Your task to perform on an android device: Set the phone to "Do not disturb". Image 0: 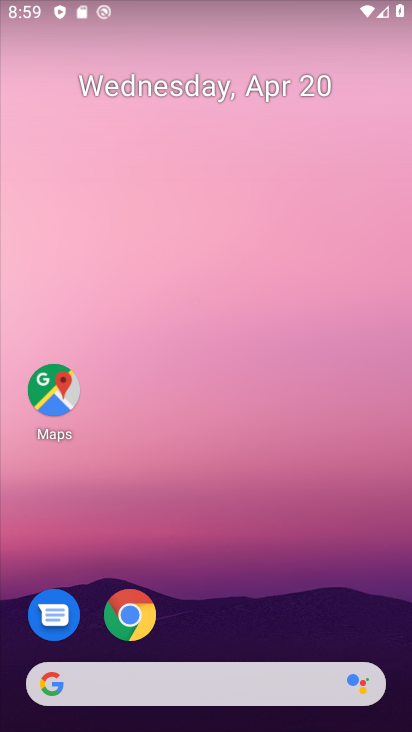
Step 0: drag from (230, 624) to (293, 48)
Your task to perform on an android device: Set the phone to "Do not disturb". Image 1: 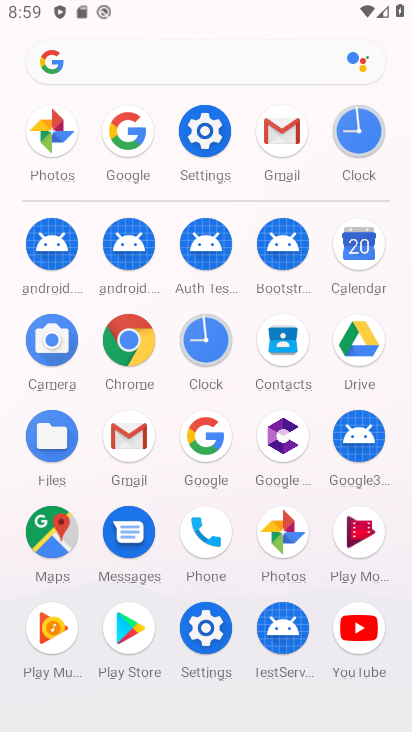
Step 1: click (204, 134)
Your task to perform on an android device: Set the phone to "Do not disturb". Image 2: 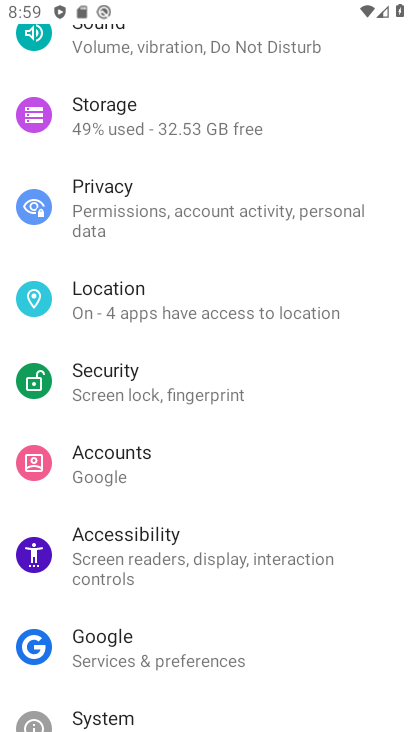
Step 2: drag from (313, 159) to (314, 245)
Your task to perform on an android device: Set the phone to "Do not disturb". Image 3: 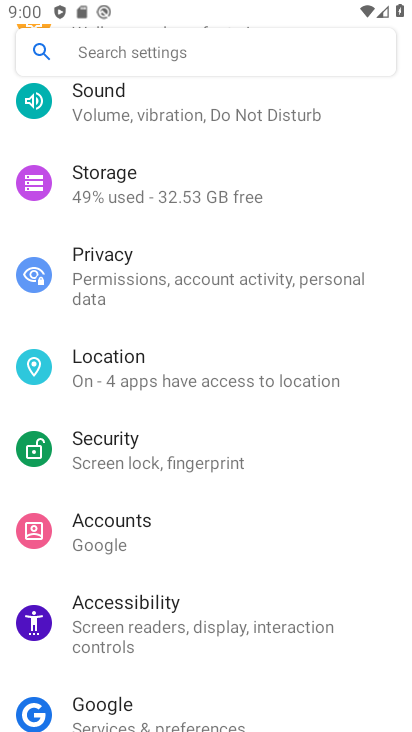
Step 3: click (299, 115)
Your task to perform on an android device: Set the phone to "Do not disturb". Image 4: 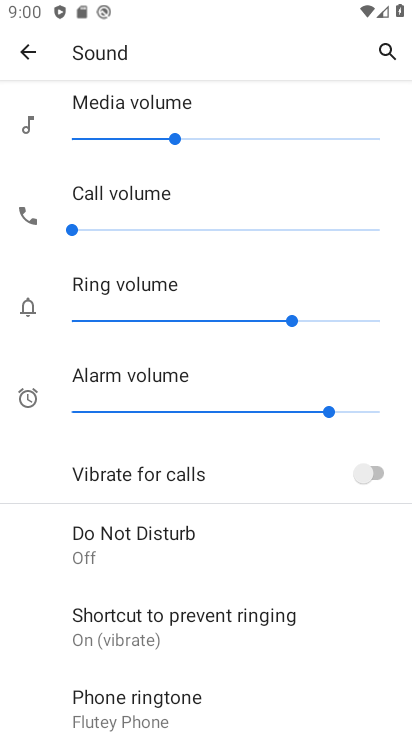
Step 4: click (163, 537)
Your task to perform on an android device: Set the phone to "Do not disturb". Image 5: 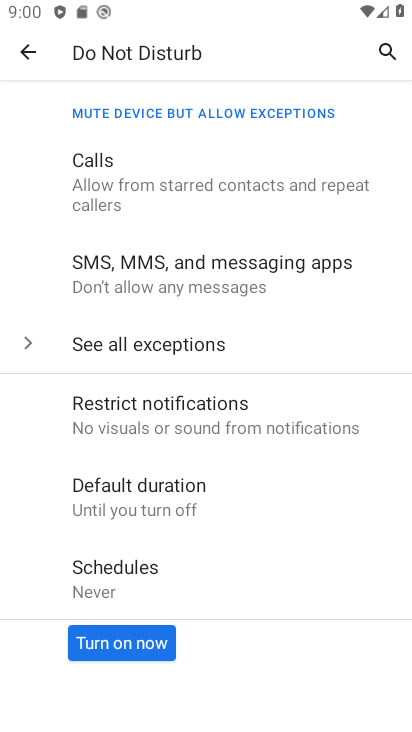
Step 5: click (119, 652)
Your task to perform on an android device: Set the phone to "Do not disturb". Image 6: 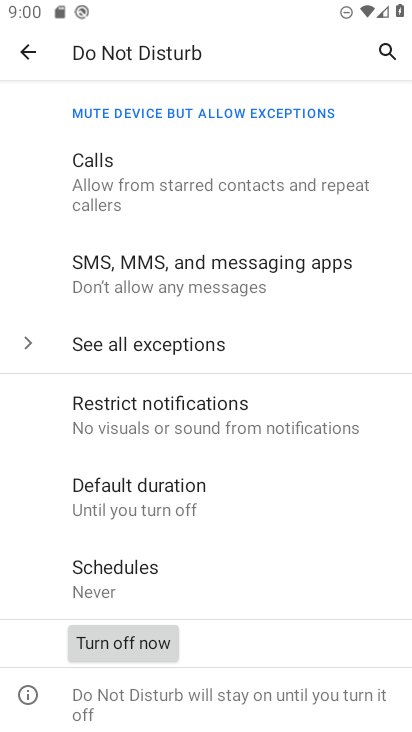
Step 6: task complete